Your task to perform on an android device: check battery use Image 0: 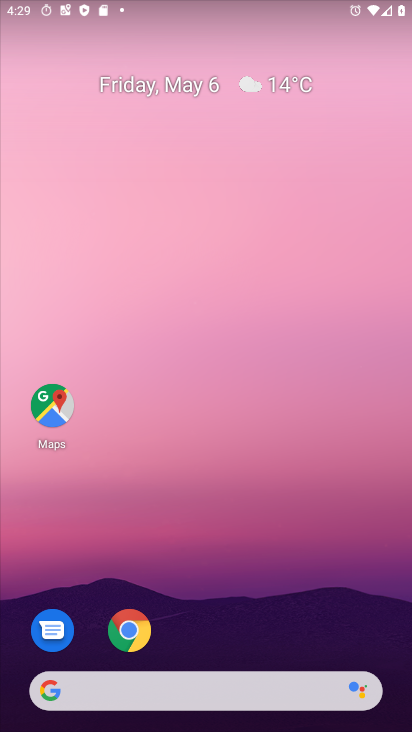
Step 0: task complete